Your task to perform on an android device: Add rayovac triple a to the cart on costco Image 0: 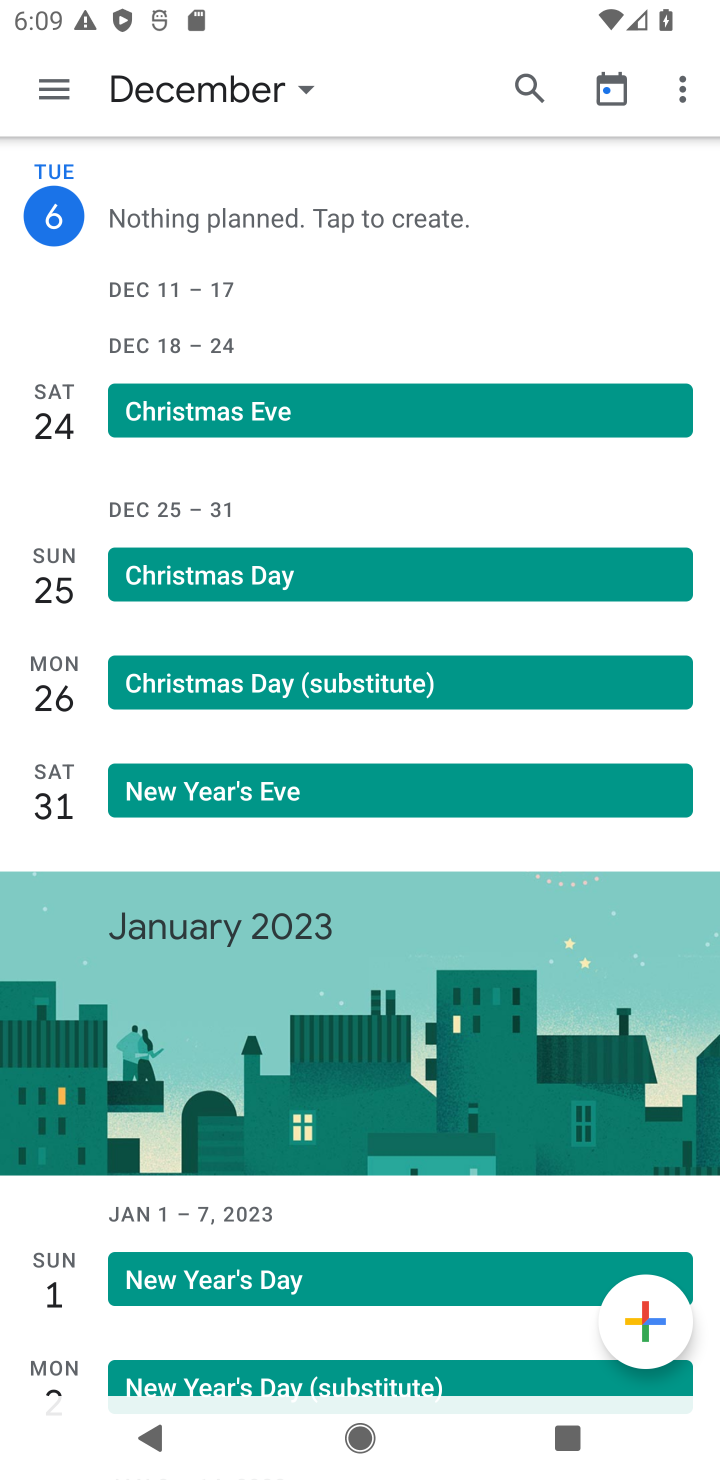
Step 0: press home button
Your task to perform on an android device: Add rayovac triple a to the cart on costco Image 1: 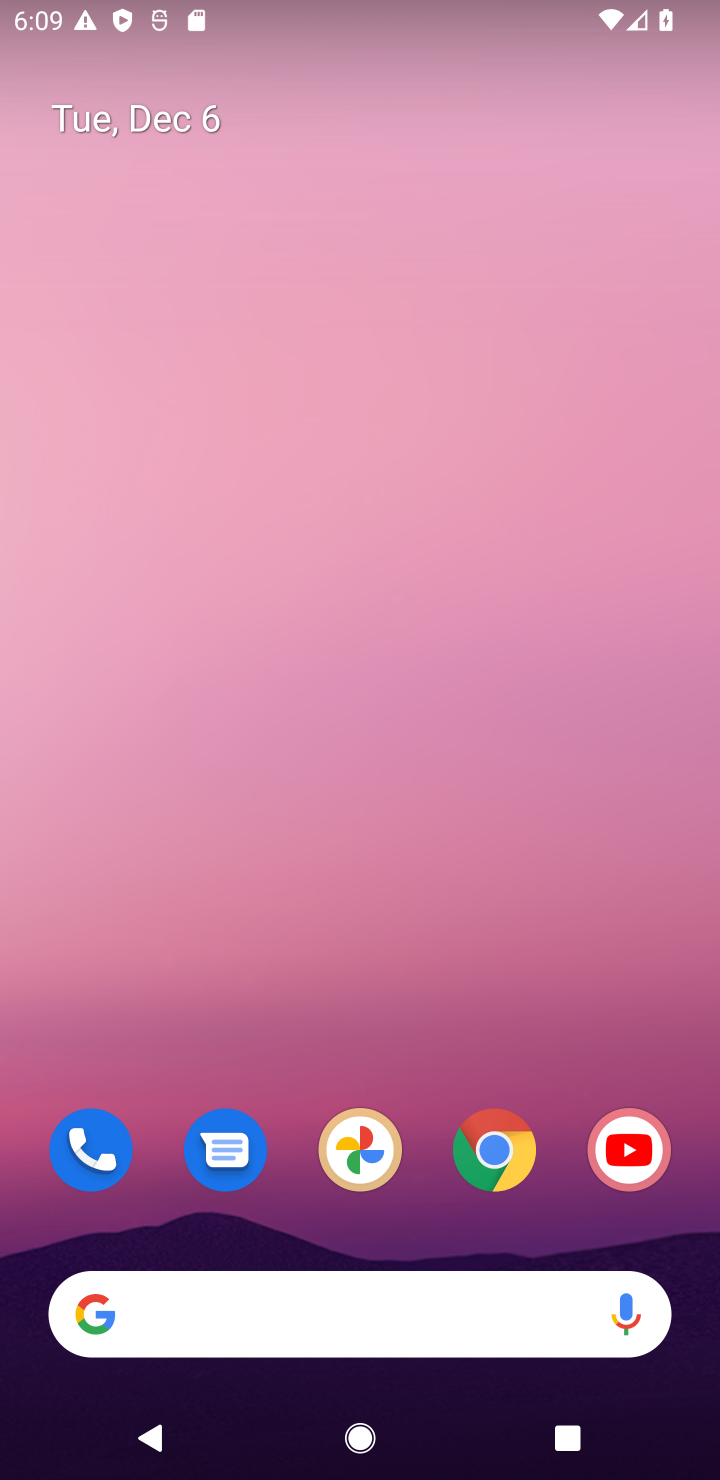
Step 1: click (502, 1164)
Your task to perform on an android device: Add rayovac triple a to the cart on costco Image 2: 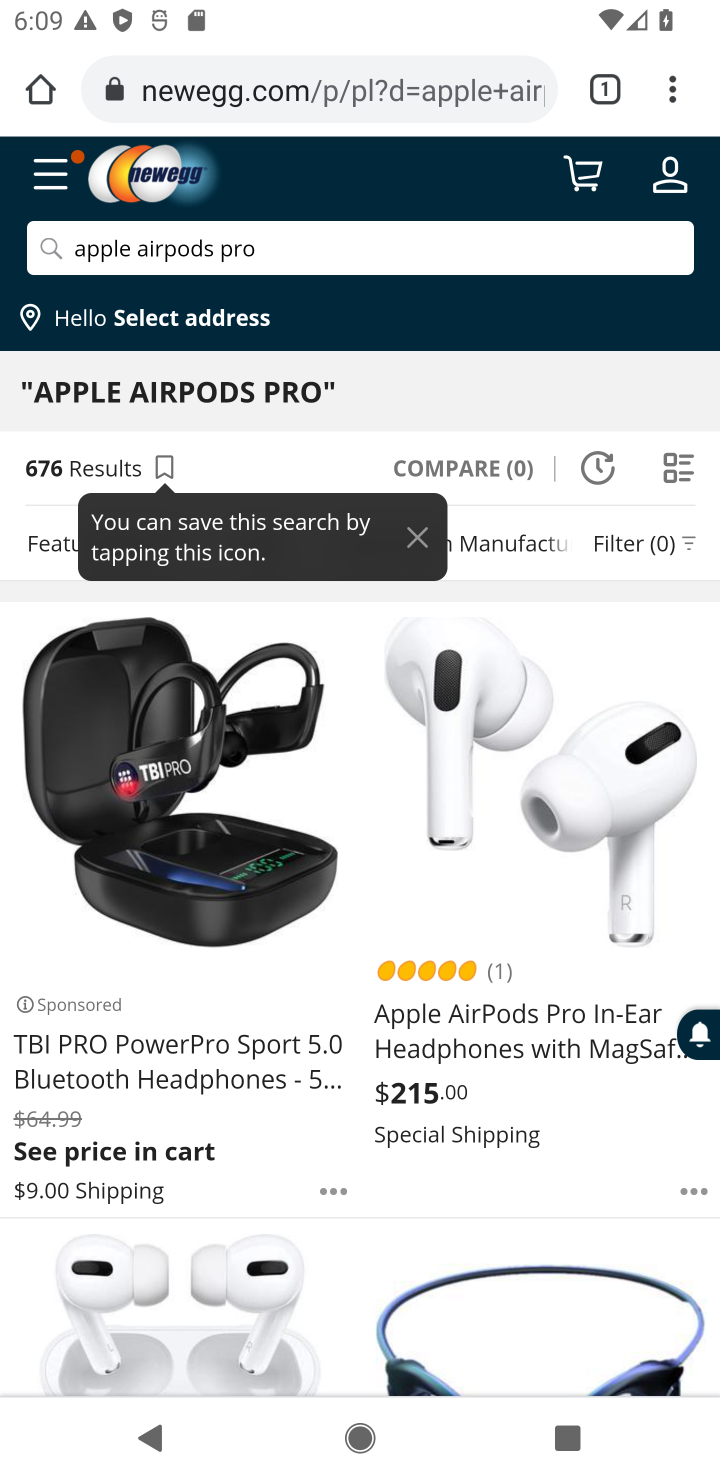
Step 2: click (288, 87)
Your task to perform on an android device: Add rayovac triple a to the cart on costco Image 3: 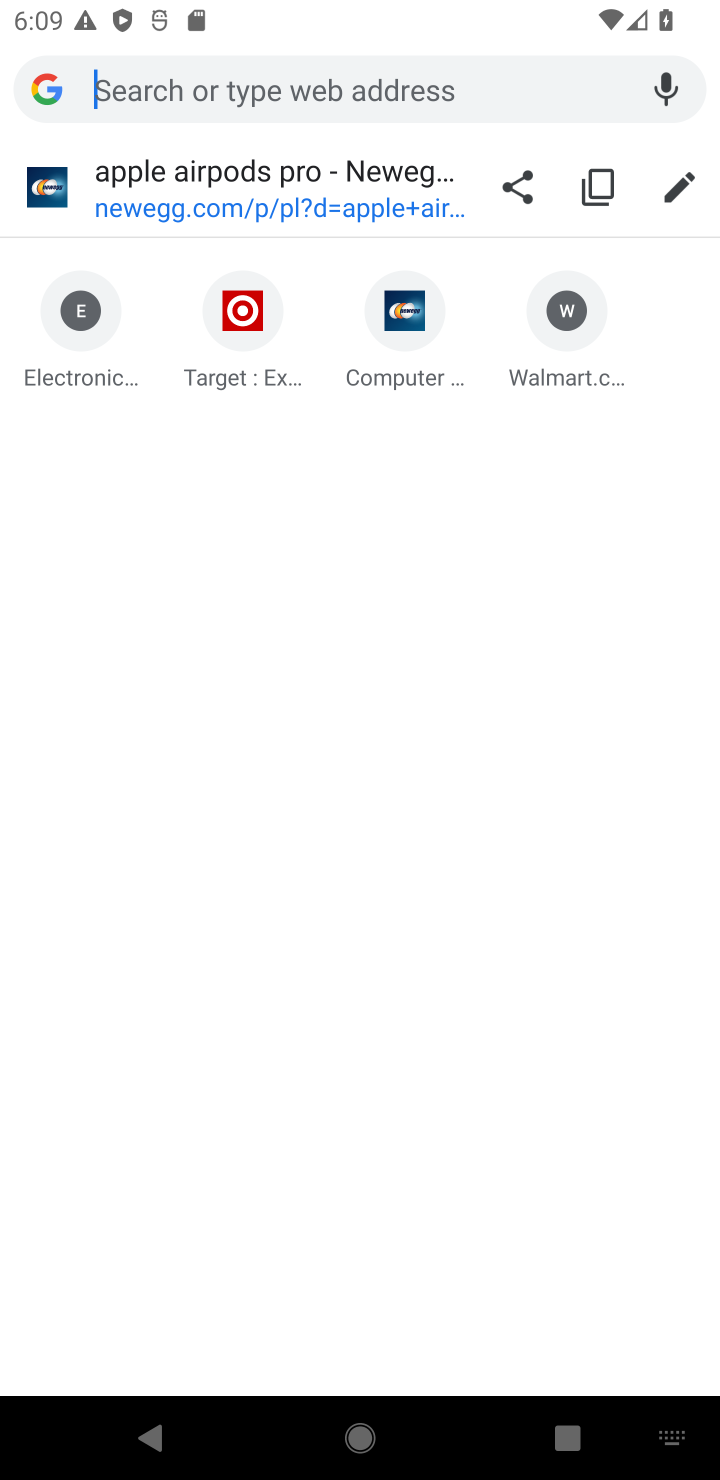
Step 3: type "costco.com"
Your task to perform on an android device: Add rayovac triple a to the cart on costco Image 4: 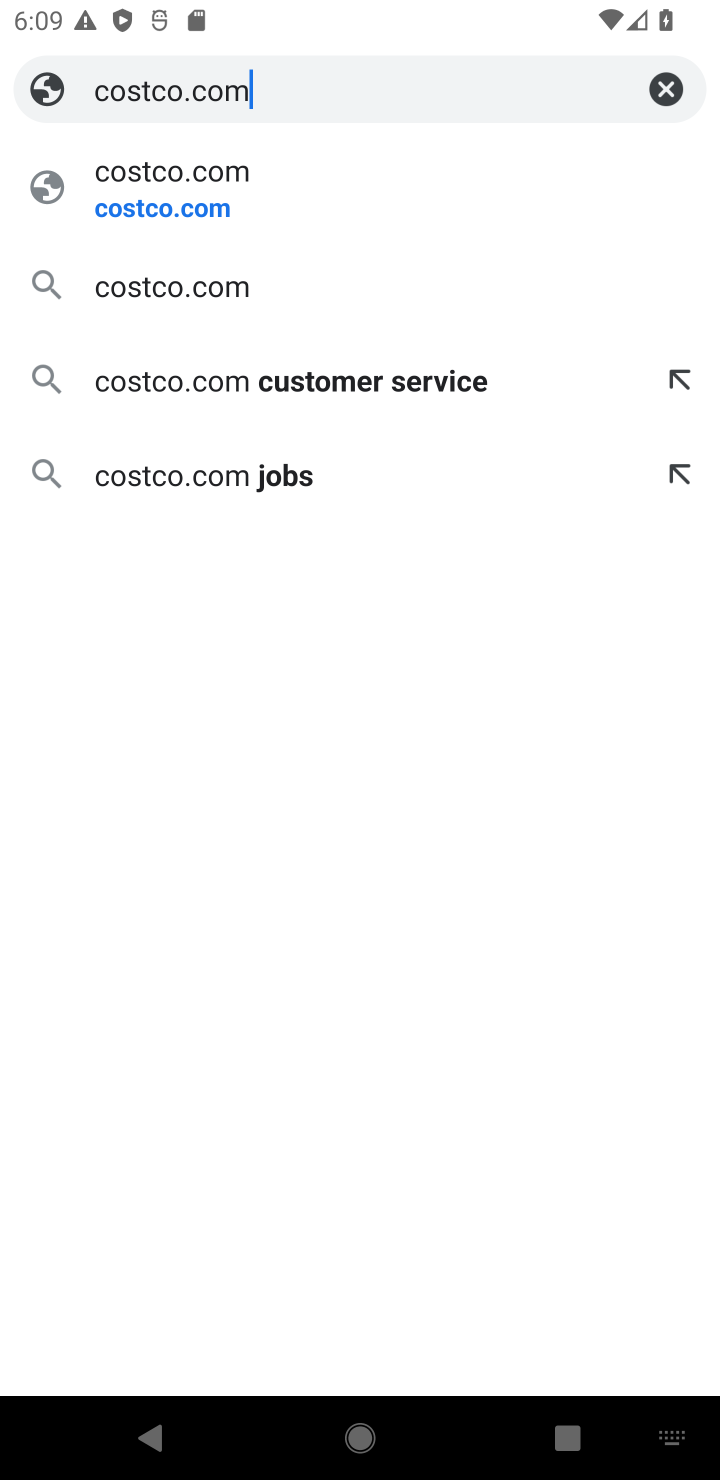
Step 4: click (131, 209)
Your task to perform on an android device: Add rayovac triple a to the cart on costco Image 5: 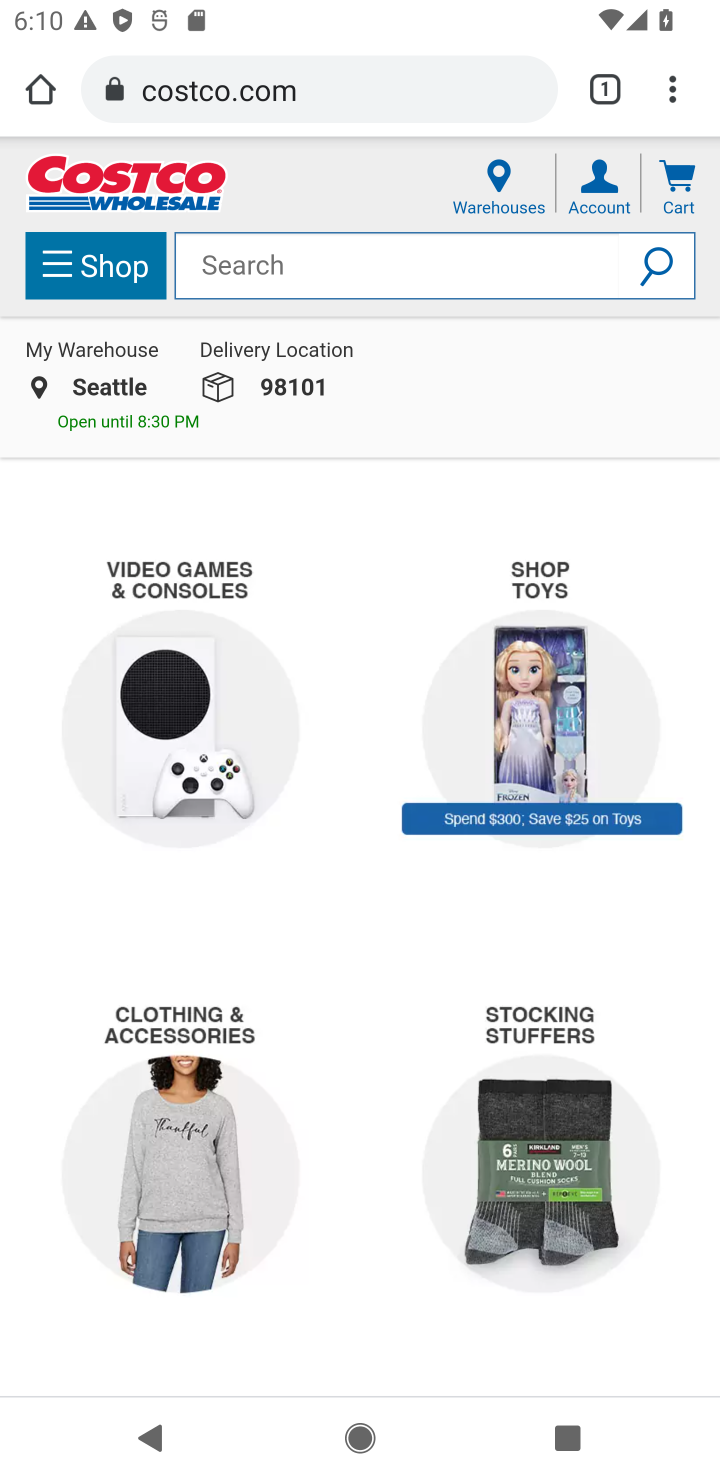
Step 5: click (279, 259)
Your task to perform on an android device: Add rayovac triple a to the cart on costco Image 6: 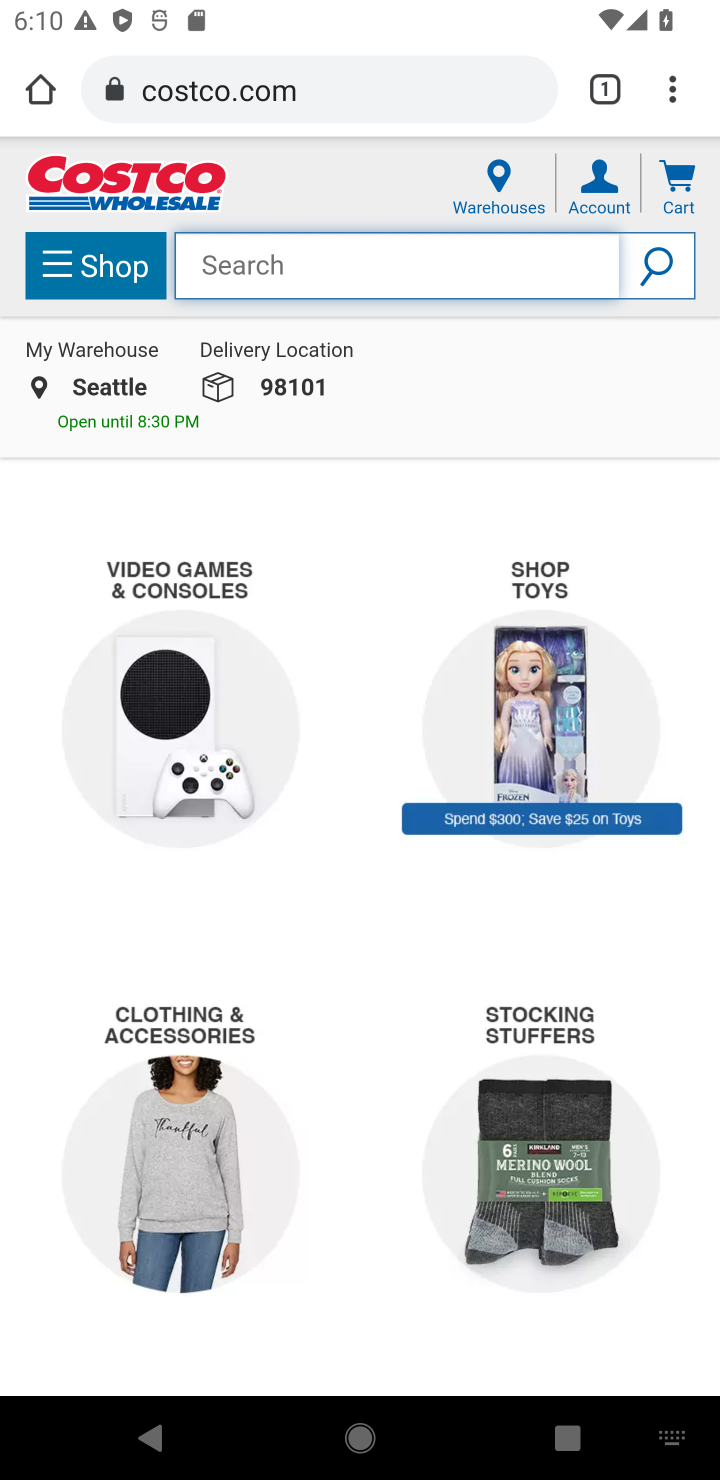
Step 6: type "rayovac triple a"
Your task to perform on an android device: Add rayovac triple a to the cart on costco Image 7: 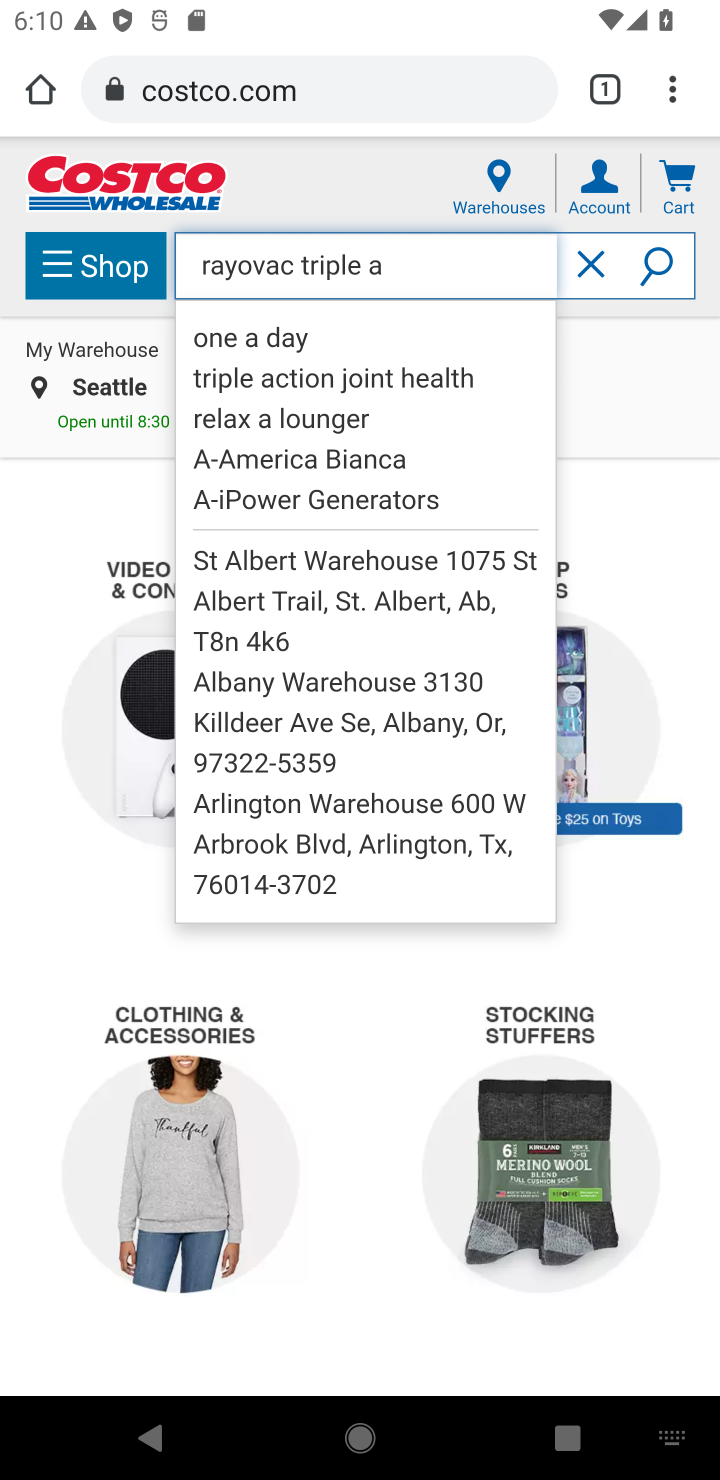
Step 7: click (649, 272)
Your task to perform on an android device: Add rayovac triple a to the cart on costco Image 8: 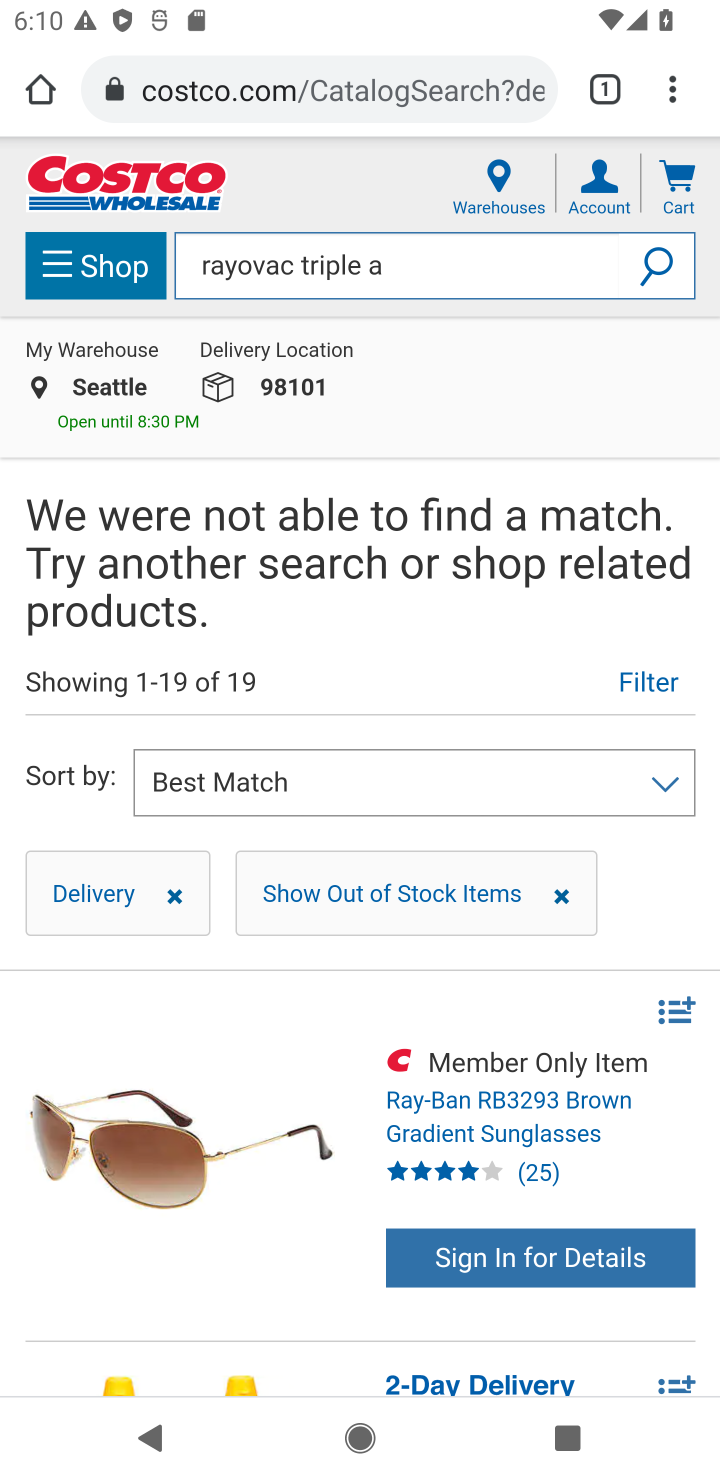
Step 8: task complete